Your task to perform on an android device: What time is it in Los Angeles? Image 0: 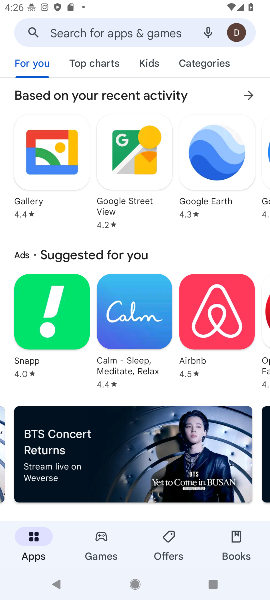
Step 0: press home button
Your task to perform on an android device: What time is it in Los Angeles? Image 1: 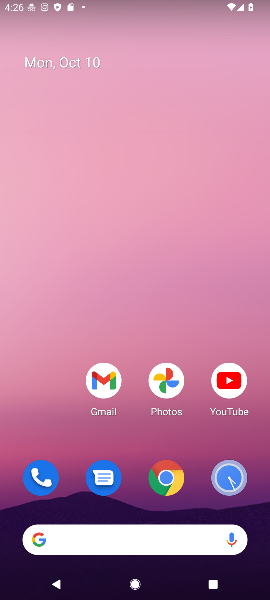
Step 1: click (173, 479)
Your task to perform on an android device: What time is it in Los Angeles? Image 2: 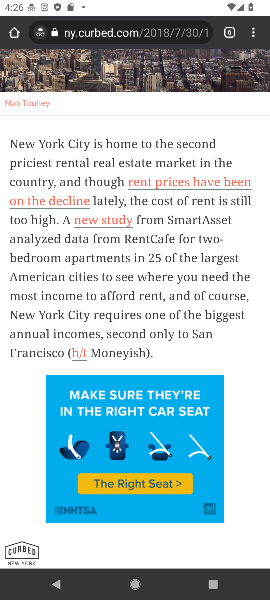
Step 2: click (92, 30)
Your task to perform on an android device: What time is it in Los Angeles? Image 3: 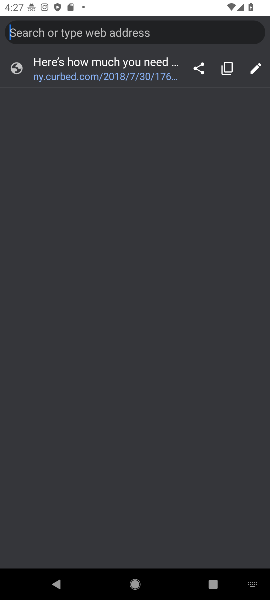
Step 3: type "What time is it in Los Angeles?"
Your task to perform on an android device: What time is it in Los Angeles? Image 4: 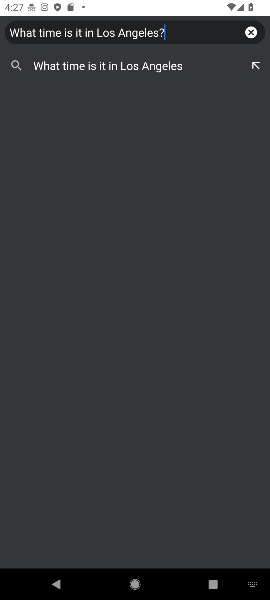
Step 4: type ""
Your task to perform on an android device: What time is it in Los Angeles? Image 5: 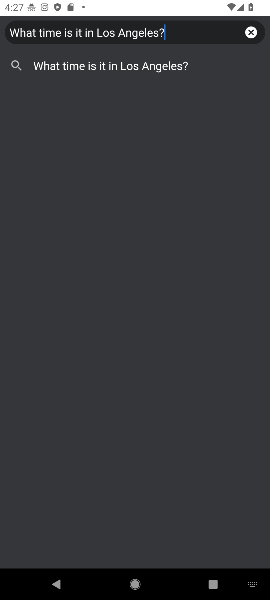
Step 5: click (83, 61)
Your task to perform on an android device: What time is it in Los Angeles? Image 6: 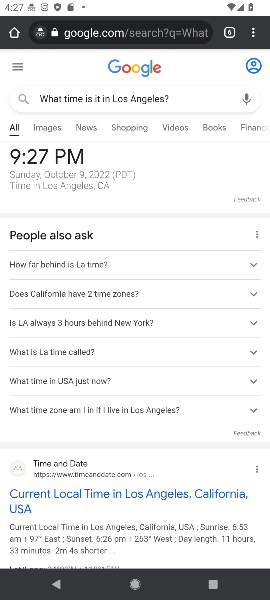
Step 6: task complete